Your task to perform on an android device: turn on the 24-hour format for clock Image 0: 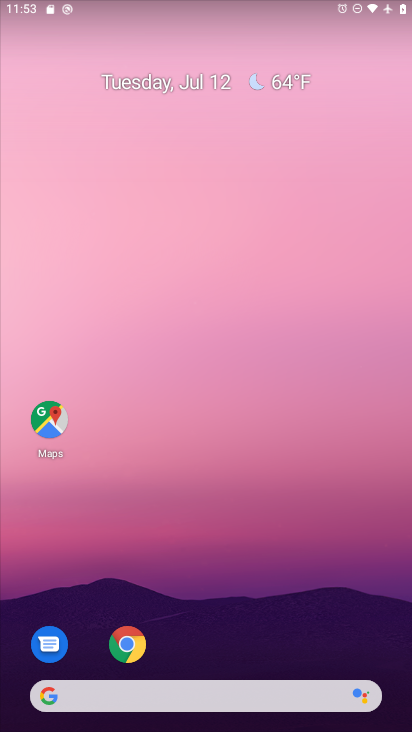
Step 0: drag from (246, 642) to (236, 147)
Your task to perform on an android device: turn on the 24-hour format for clock Image 1: 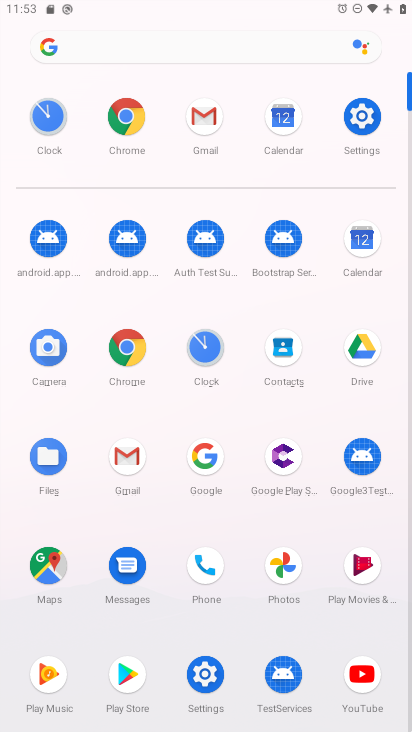
Step 1: click (57, 130)
Your task to perform on an android device: turn on the 24-hour format for clock Image 2: 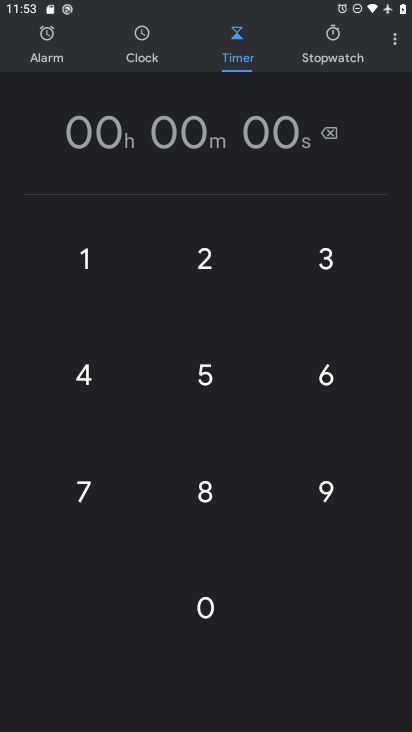
Step 2: click (406, 35)
Your task to perform on an android device: turn on the 24-hour format for clock Image 3: 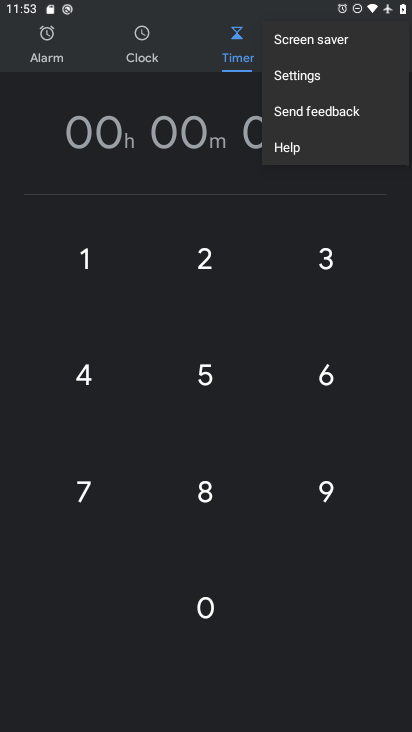
Step 3: click (308, 79)
Your task to perform on an android device: turn on the 24-hour format for clock Image 4: 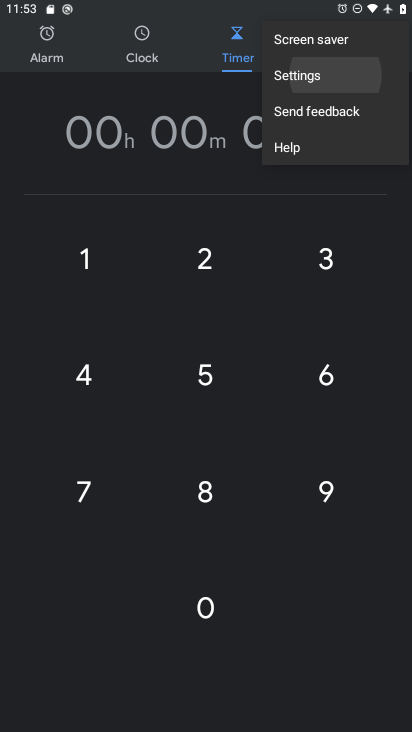
Step 4: click (308, 79)
Your task to perform on an android device: turn on the 24-hour format for clock Image 5: 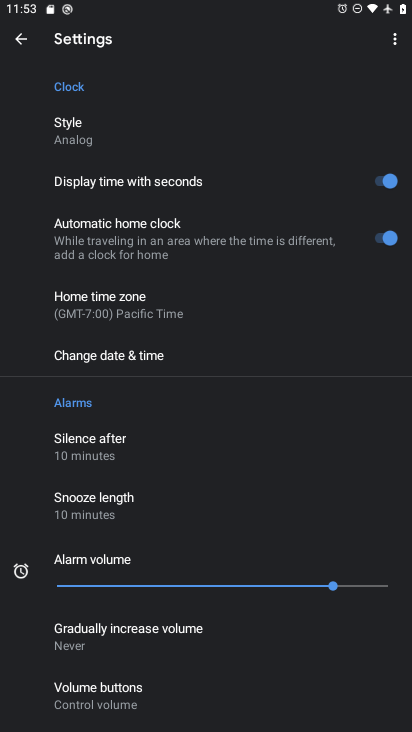
Step 5: click (163, 365)
Your task to perform on an android device: turn on the 24-hour format for clock Image 6: 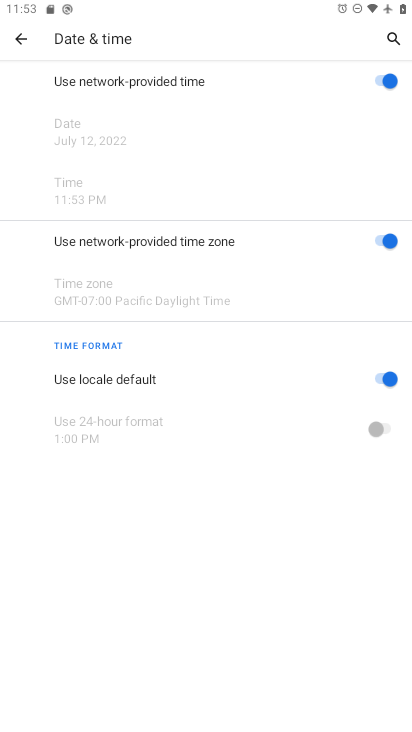
Step 6: click (364, 382)
Your task to perform on an android device: turn on the 24-hour format for clock Image 7: 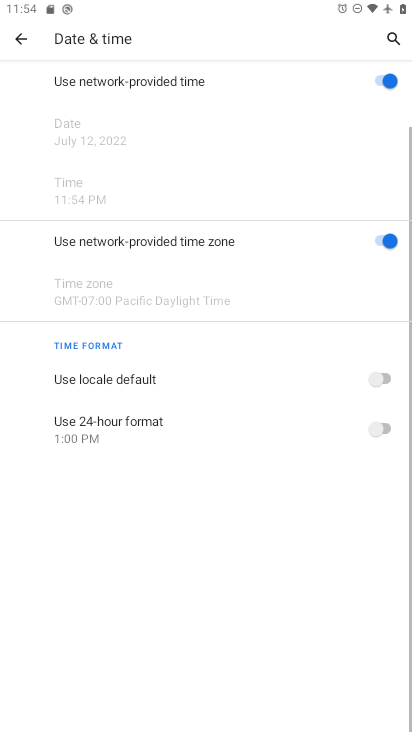
Step 7: task complete